Your task to perform on an android device: add a contact in the contacts app Image 0: 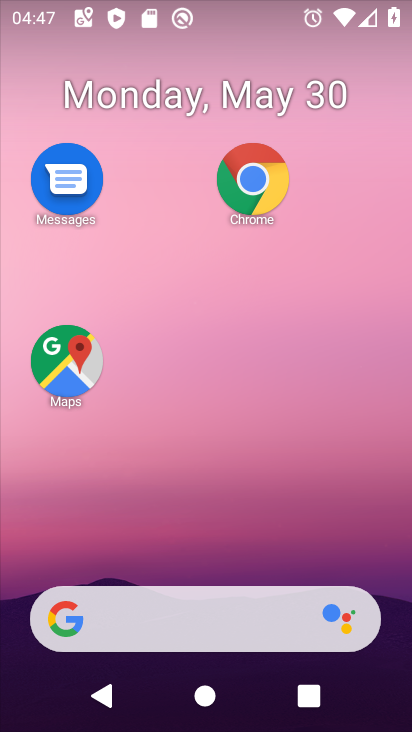
Step 0: drag from (213, 506) to (157, 10)
Your task to perform on an android device: add a contact in the contacts app Image 1: 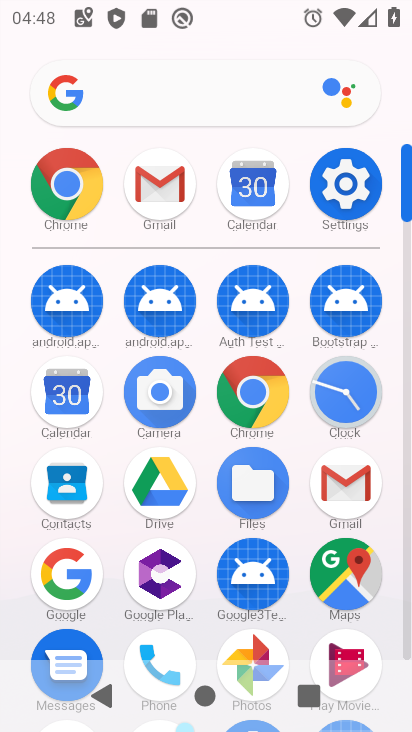
Step 1: click (79, 498)
Your task to perform on an android device: add a contact in the contacts app Image 2: 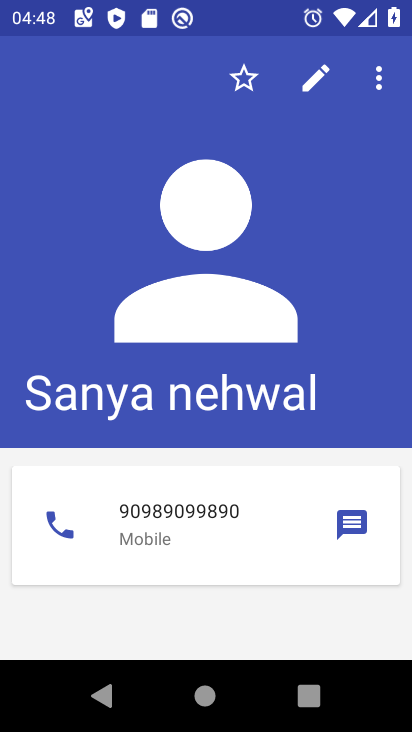
Step 2: press back button
Your task to perform on an android device: add a contact in the contacts app Image 3: 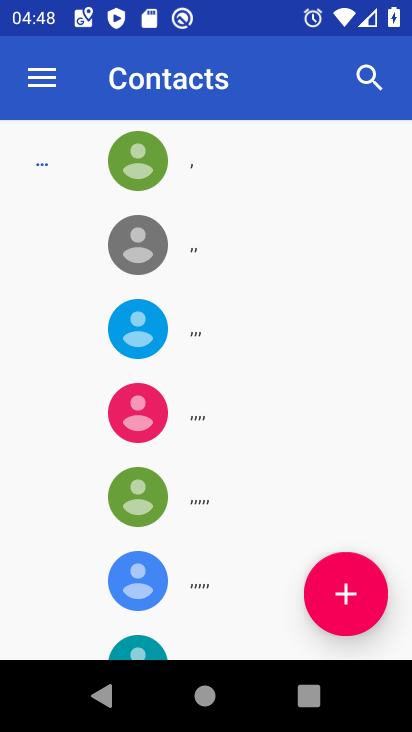
Step 3: click (332, 595)
Your task to perform on an android device: add a contact in the contacts app Image 4: 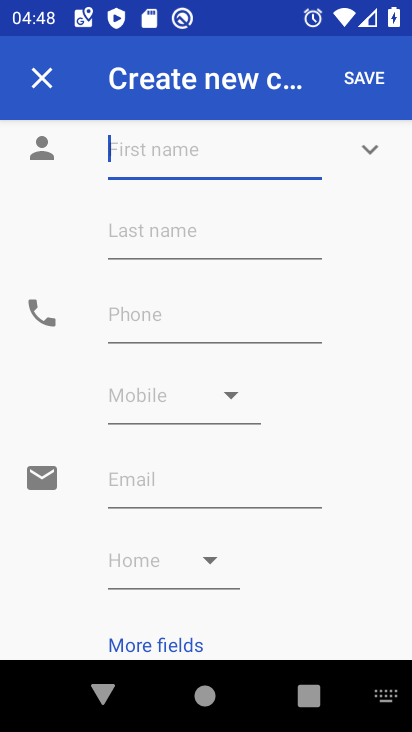
Step 4: type "Munjal"
Your task to perform on an android device: add a contact in the contacts app Image 5: 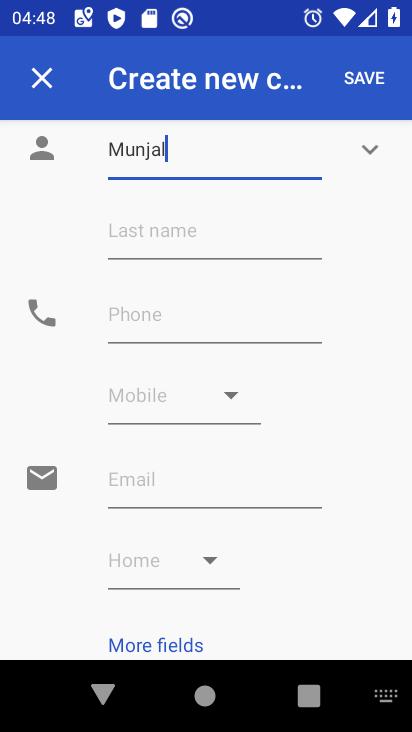
Step 5: click (179, 217)
Your task to perform on an android device: add a contact in the contacts app Image 6: 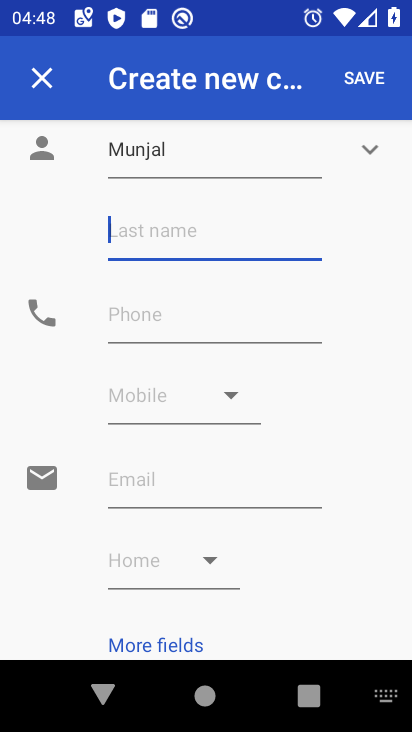
Step 6: type "Thakur"
Your task to perform on an android device: add a contact in the contacts app Image 7: 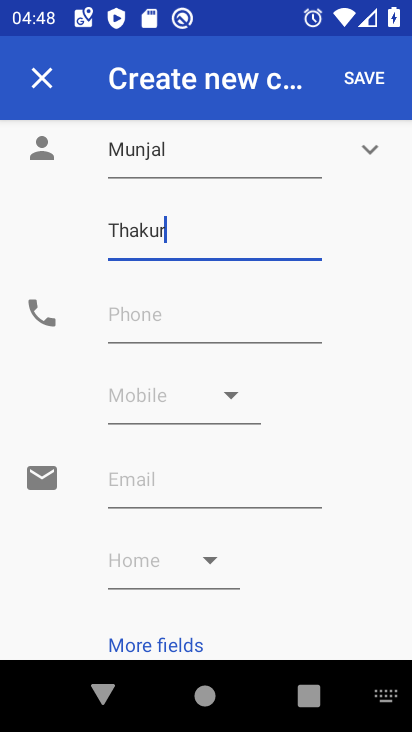
Step 7: drag from (304, 300) to (337, 447)
Your task to perform on an android device: add a contact in the contacts app Image 8: 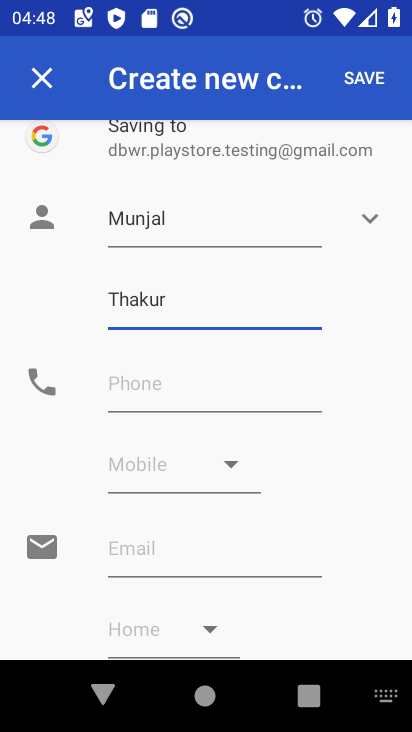
Step 8: click (197, 329)
Your task to perform on an android device: add a contact in the contacts app Image 9: 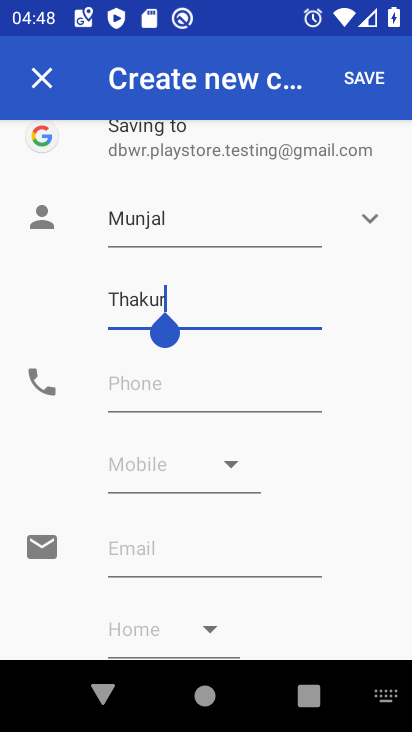
Step 9: click (250, 378)
Your task to perform on an android device: add a contact in the contacts app Image 10: 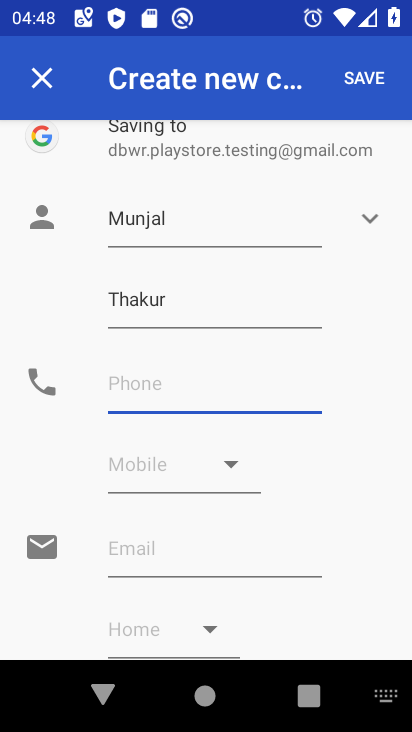
Step 10: click (227, 389)
Your task to perform on an android device: add a contact in the contacts app Image 11: 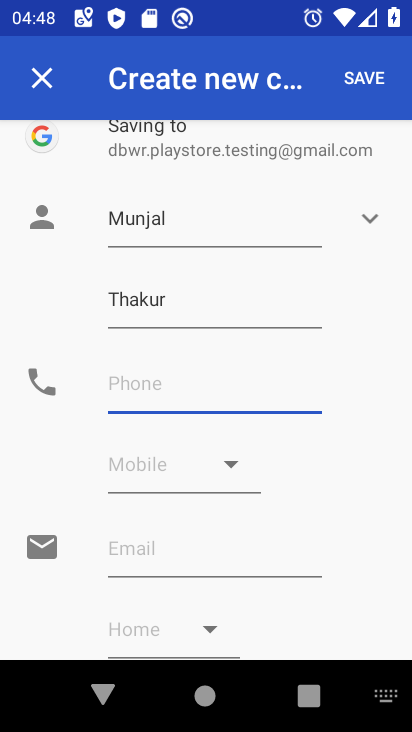
Step 11: type "9090090990"
Your task to perform on an android device: add a contact in the contacts app Image 12: 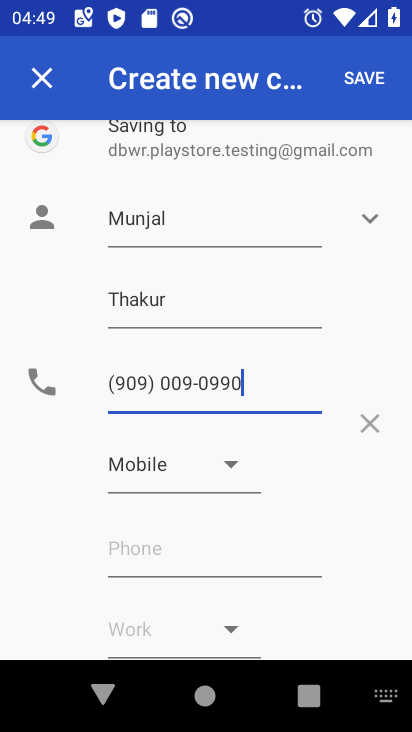
Step 12: click (359, 99)
Your task to perform on an android device: add a contact in the contacts app Image 13: 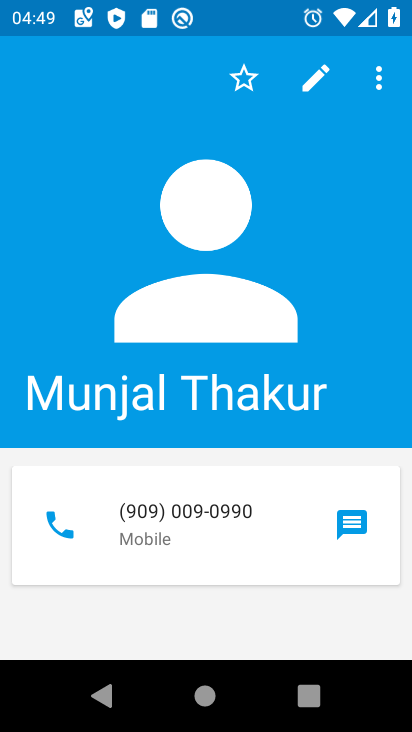
Step 13: task complete